Your task to perform on an android device: Open Yahoo.com Image 0: 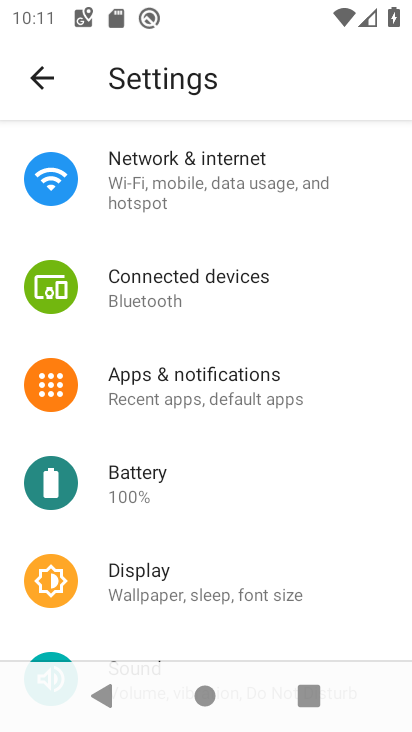
Step 0: press back button
Your task to perform on an android device: Open Yahoo.com Image 1: 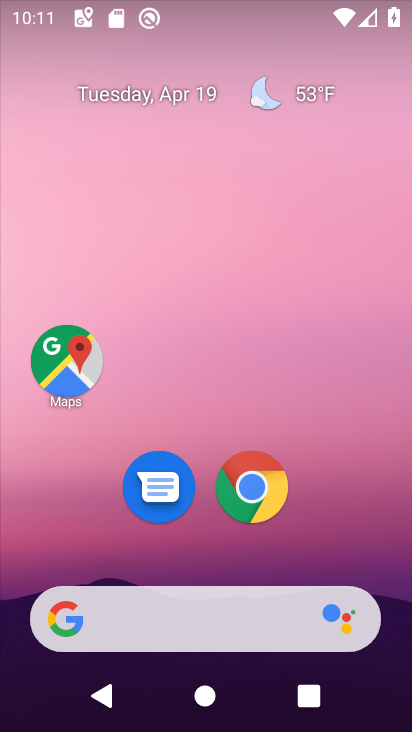
Step 1: drag from (304, 353) to (250, 5)
Your task to perform on an android device: Open Yahoo.com Image 2: 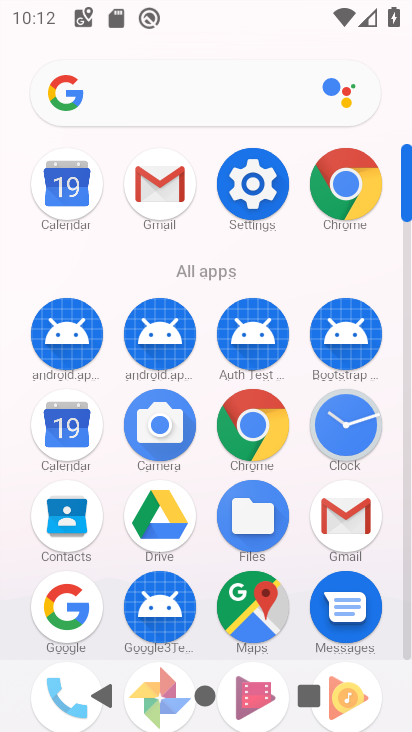
Step 2: click (346, 185)
Your task to perform on an android device: Open Yahoo.com Image 3: 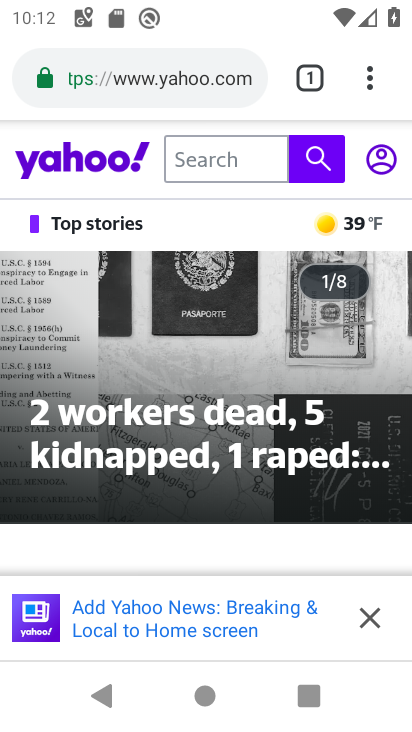
Step 3: task complete